Your task to perform on an android device: Open Youtube and go to "Your channel" Image 0: 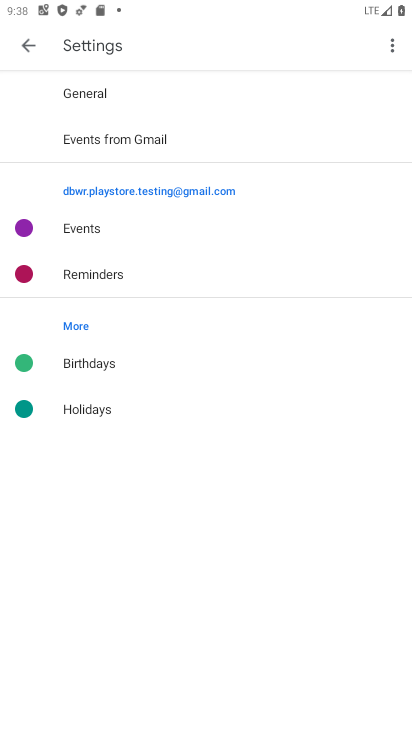
Step 0: press back button
Your task to perform on an android device: Open Youtube and go to "Your channel" Image 1: 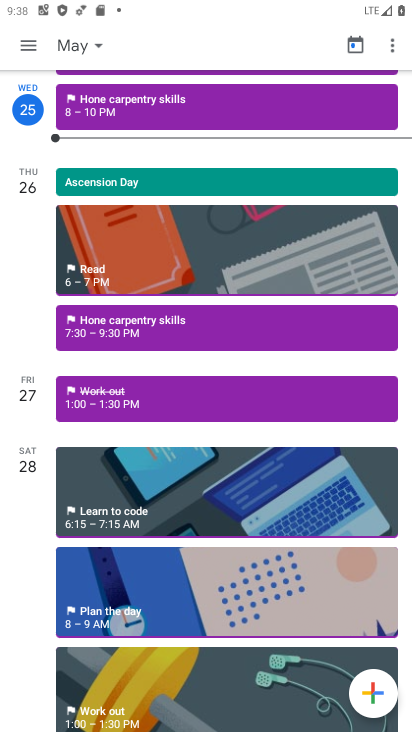
Step 1: press back button
Your task to perform on an android device: Open Youtube and go to "Your channel" Image 2: 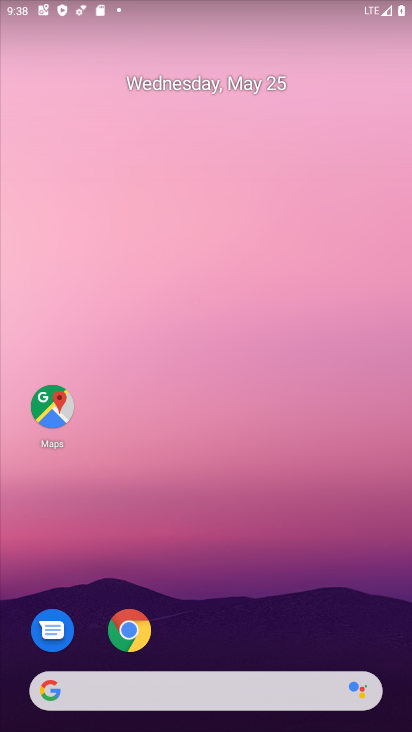
Step 2: drag from (224, 588) to (298, 144)
Your task to perform on an android device: Open Youtube and go to "Your channel" Image 3: 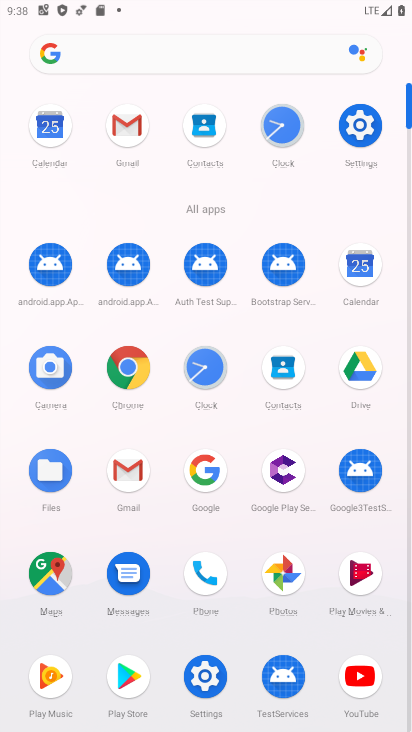
Step 3: click (357, 680)
Your task to perform on an android device: Open Youtube and go to "Your channel" Image 4: 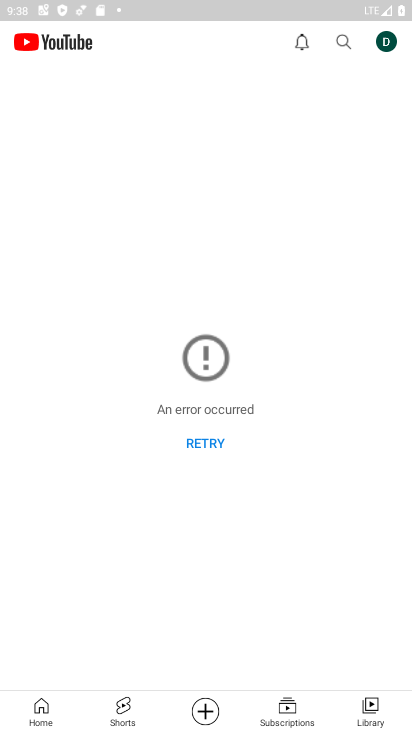
Step 4: click (386, 40)
Your task to perform on an android device: Open Youtube and go to "Your channel" Image 5: 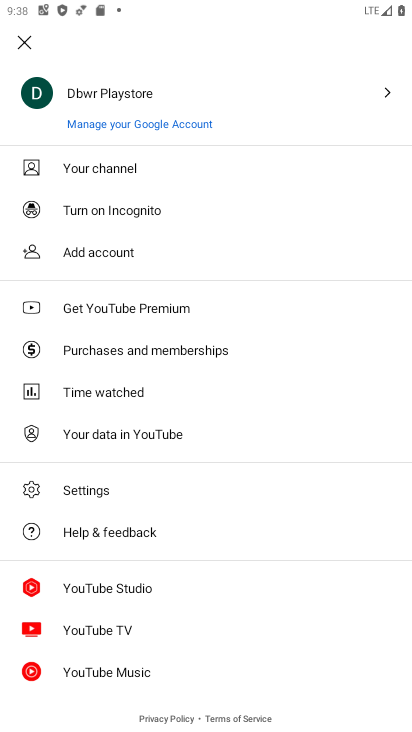
Step 5: click (112, 165)
Your task to perform on an android device: Open Youtube and go to "Your channel" Image 6: 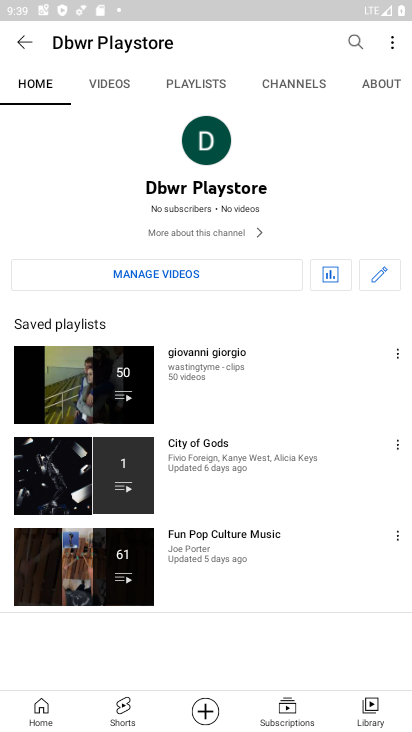
Step 6: task complete